Your task to perform on an android device: check data usage Image 0: 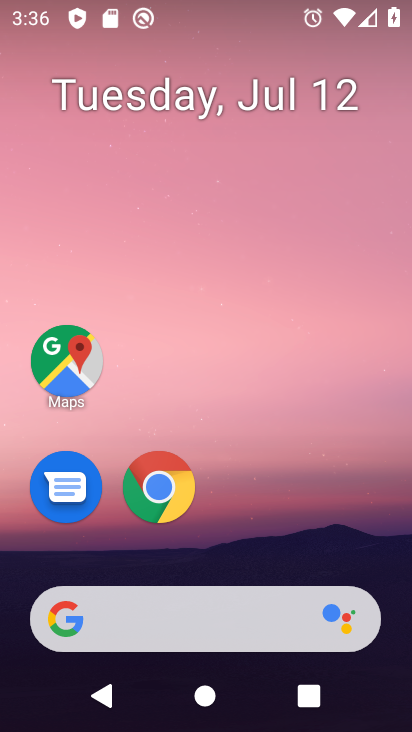
Step 0: drag from (177, 589) to (191, 103)
Your task to perform on an android device: check data usage Image 1: 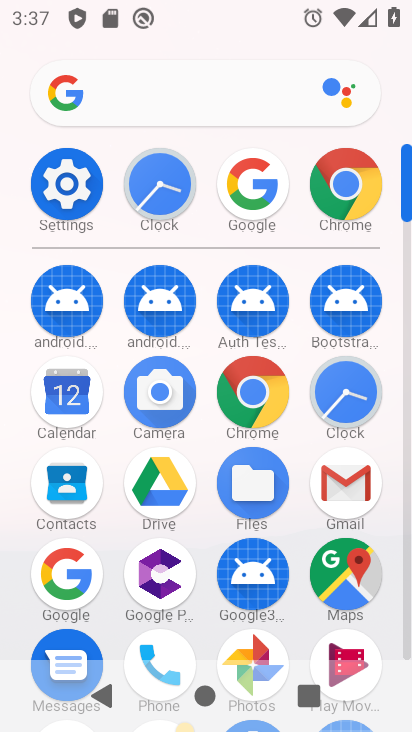
Step 1: click (71, 179)
Your task to perform on an android device: check data usage Image 2: 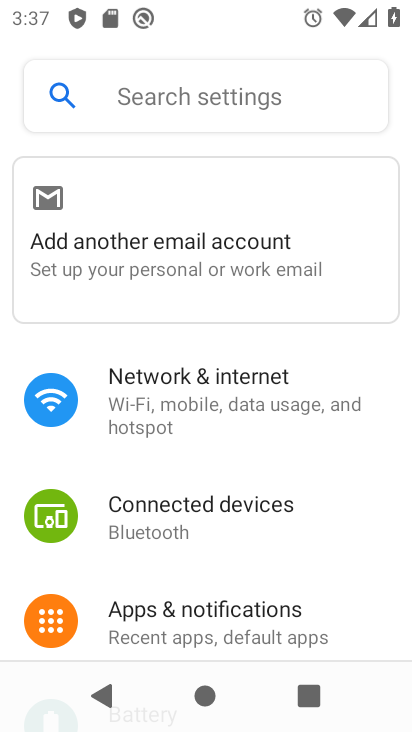
Step 2: click (202, 413)
Your task to perform on an android device: check data usage Image 3: 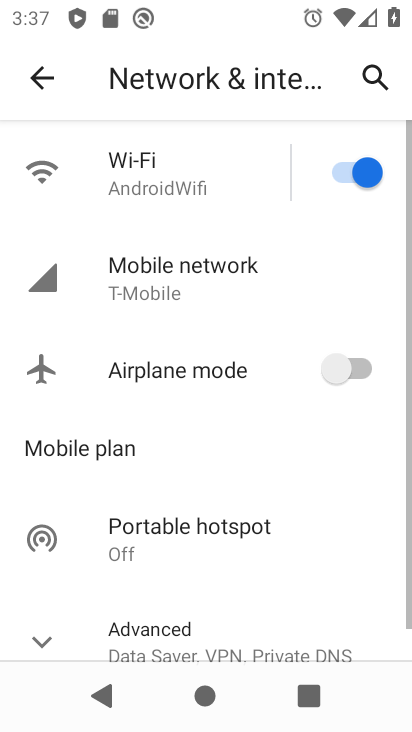
Step 3: click (141, 286)
Your task to perform on an android device: check data usage Image 4: 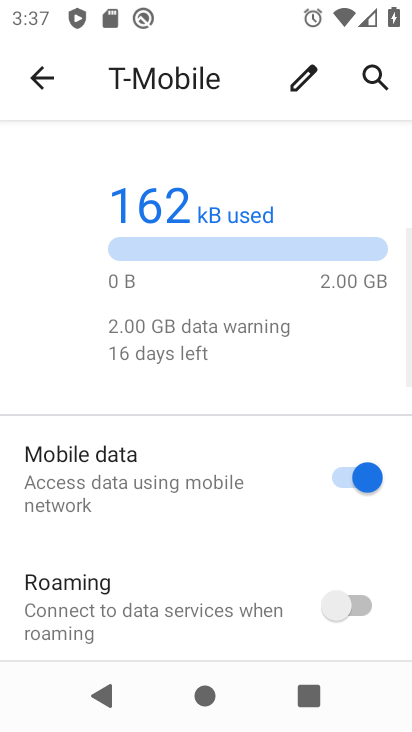
Step 4: task complete